Your task to perform on an android device: turn notification dots off Image 0: 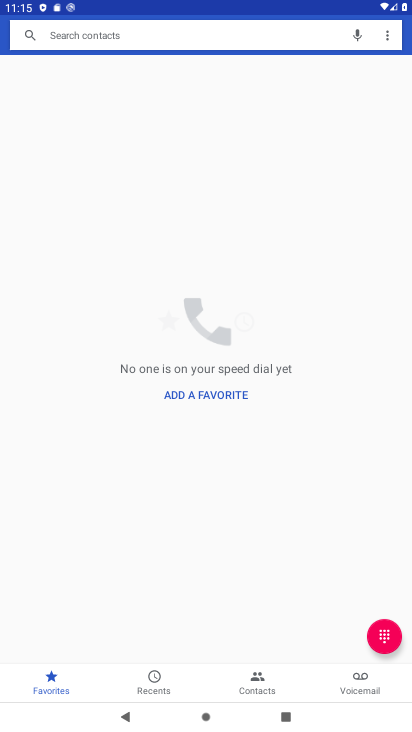
Step 0: press home button
Your task to perform on an android device: turn notification dots off Image 1: 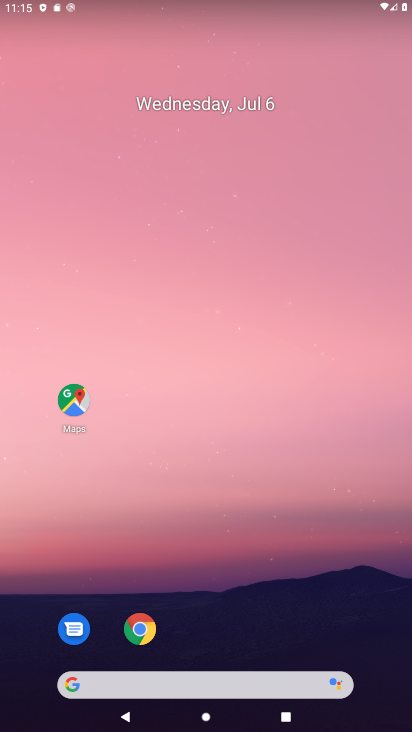
Step 1: drag from (349, 592) to (348, 68)
Your task to perform on an android device: turn notification dots off Image 2: 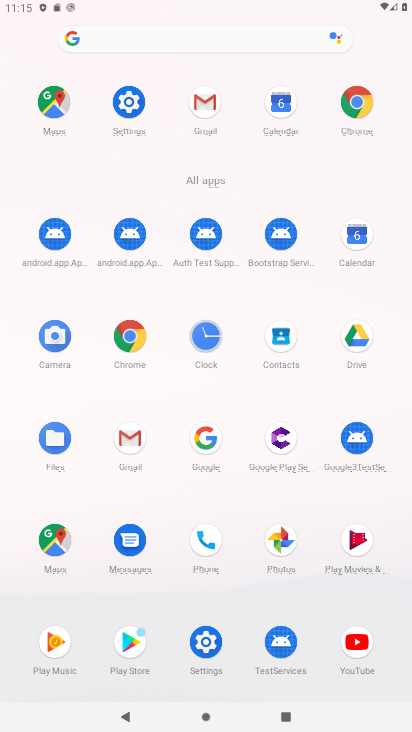
Step 2: click (135, 113)
Your task to perform on an android device: turn notification dots off Image 3: 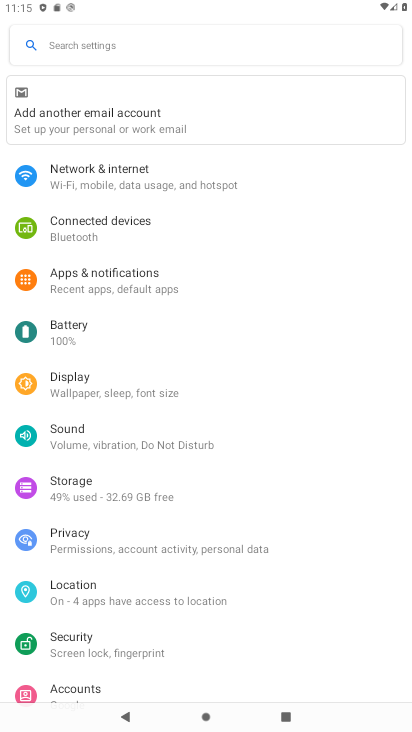
Step 3: click (154, 284)
Your task to perform on an android device: turn notification dots off Image 4: 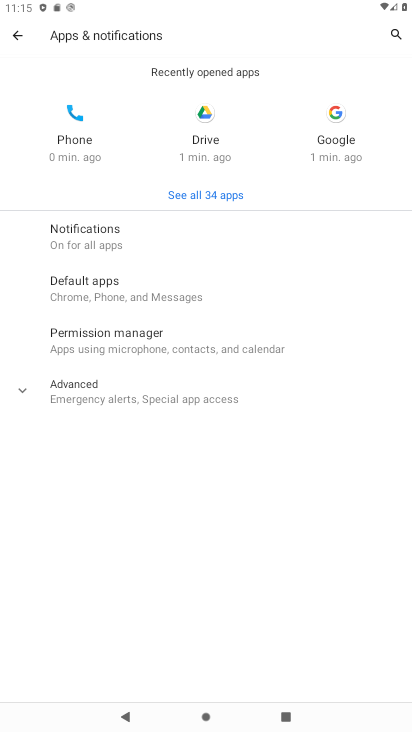
Step 4: click (106, 240)
Your task to perform on an android device: turn notification dots off Image 5: 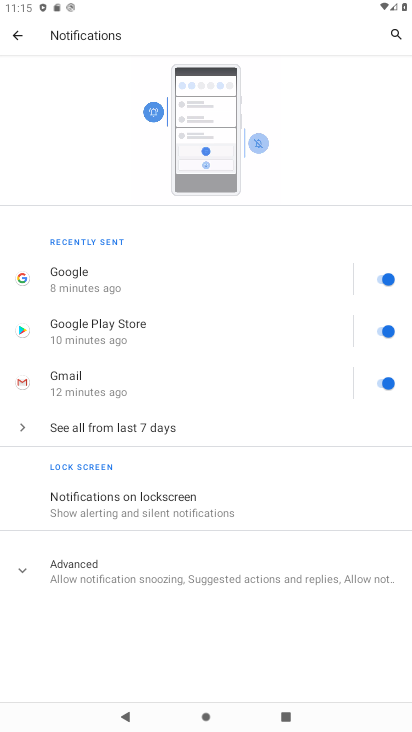
Step 5: click (243, 584)
Your task to perform on an android device: turn notification dots off Image 6: 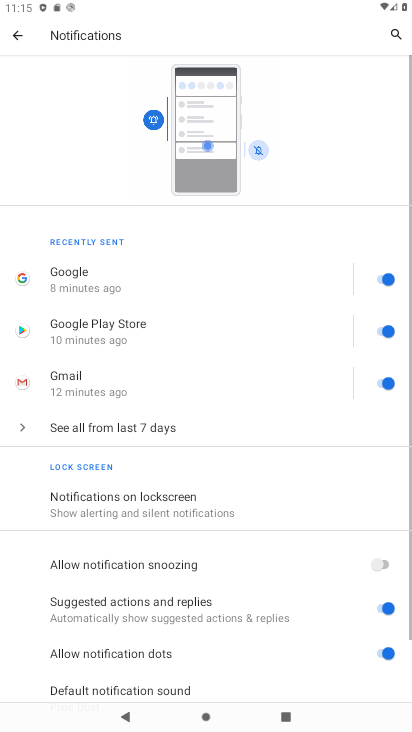
Step 6: drag from (320, 534) to (313, 413)
Your task to perform on an android device: turn notification dots off Image 7: 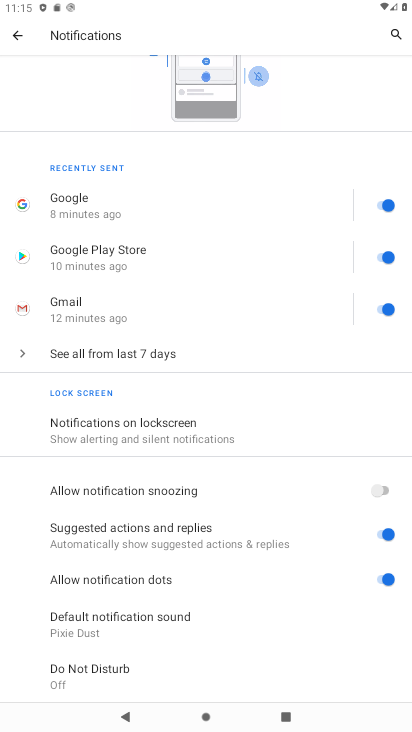
Step 7: click (385, 580)
Your task to perform on an android device: turn notification dots off Image 8: 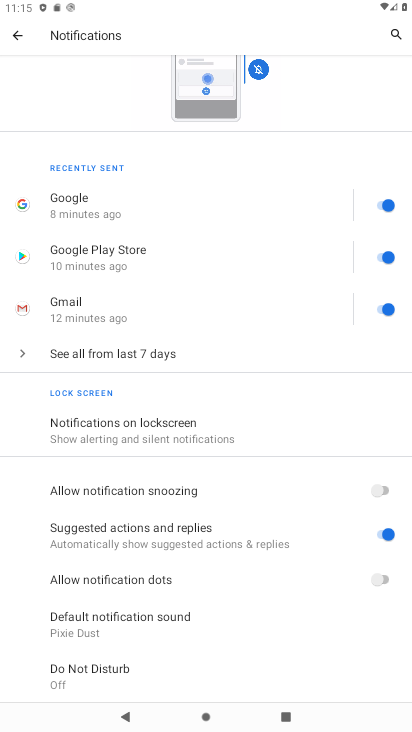
Step 8: task complete